Your task to perform on an android device: turn on the 24-hour format for clock Image 0: 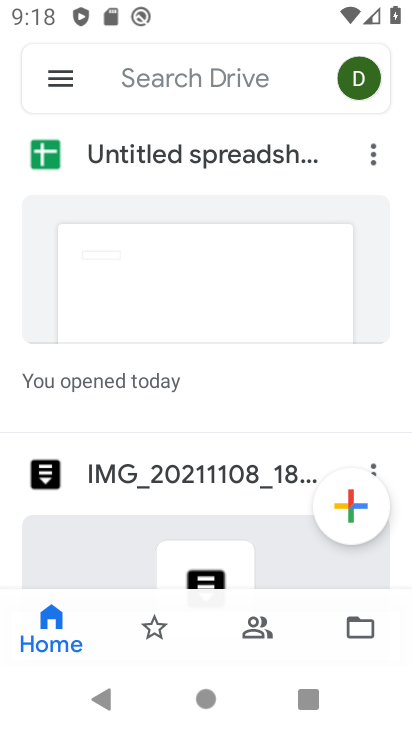
Step 0: press home button
Your task to perform on an android device: turn on the 24-hour format for clock Image 1: 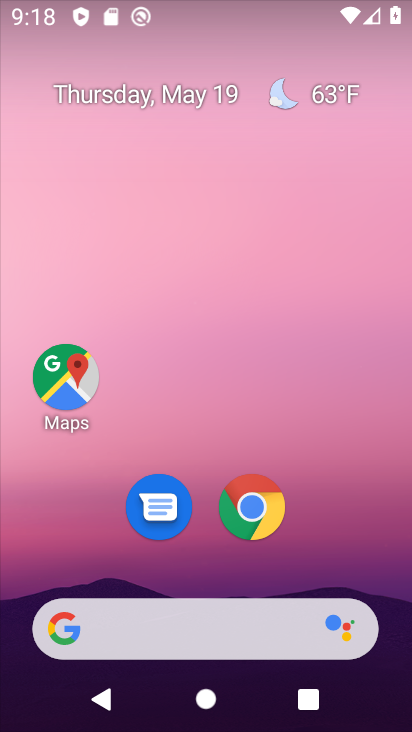
Step 1: drag from (387, 572) to (306, 106)
Your task to perform on an android device: turn on the 24-hour format for clock Image 2: 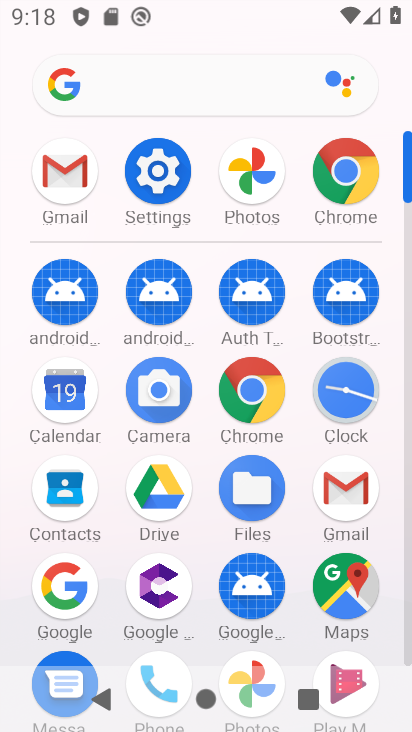
Step 2: click (356, 373)
Your task to perform on an android device: turn on the 24-hour format for clock Image 3: 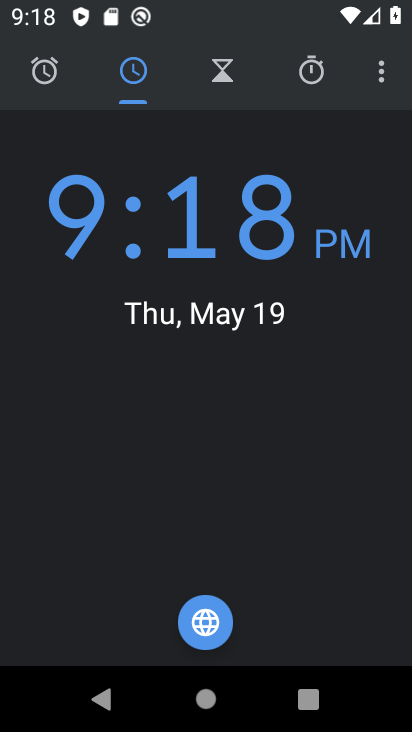
Step 3: click (390, 85)
Your task to perform on an android device: turn on the 24-hour format for clock Image 4: 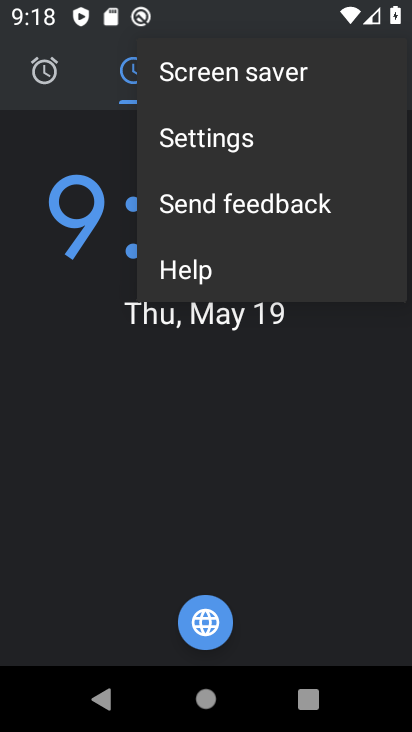
Step 4: click (314, 140)
Your task to perform on an android device: turn on the 24-hour format for clock Image 5: 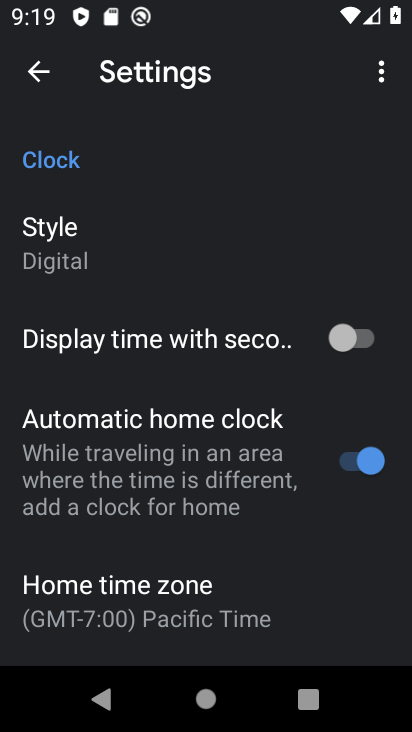
Step 5: drag from (275, 564) to (204, 195)
Your task to perform on an android device: turn on the 24-hour format for clock Image 6: 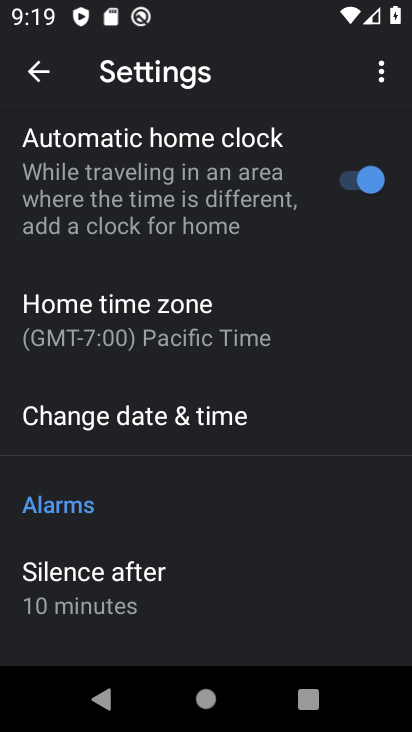
Step 6: click (258, 438)
Your task to perform on an android device: turn on the 24-hour format for clock Image 7: 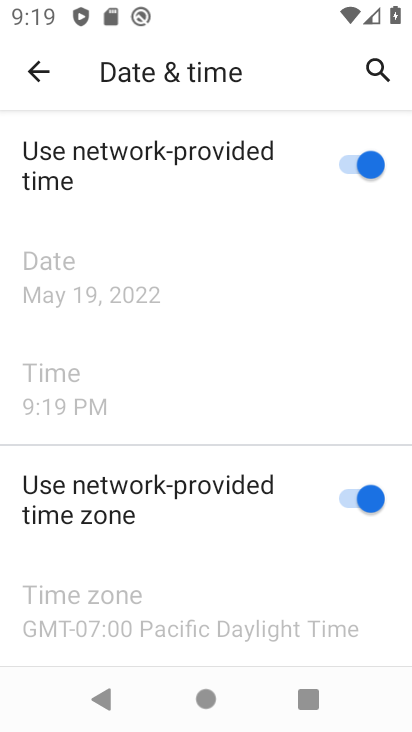
Step 7: drag from (273, 562) to (250, 137)
Your task to perform on an android device: turn on the 24-hour format for clock Image 8: 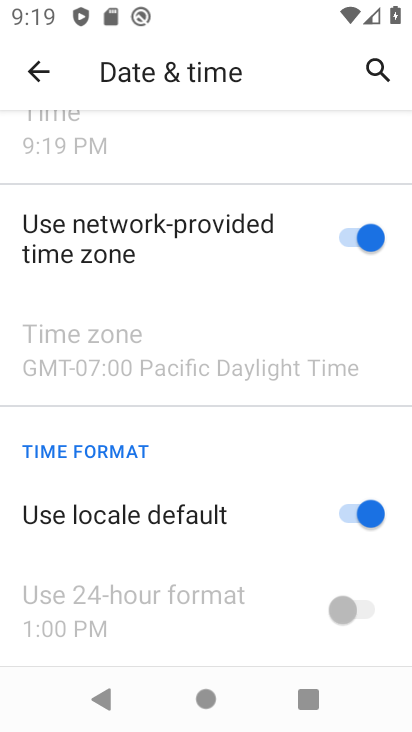
Step 8: click (350, 521)
Your task to perform on an android device: turn on the 24-hour format for clock Image 9: 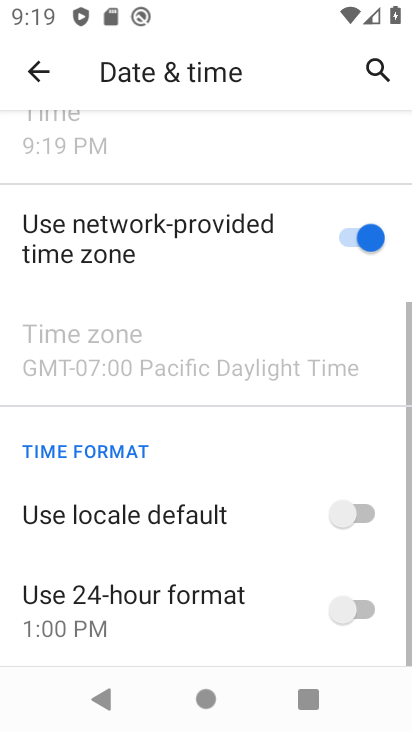
Step 9: click (364, 590)
Your task to perform on an android device: turn on the 24-hour format for clock Image 10: 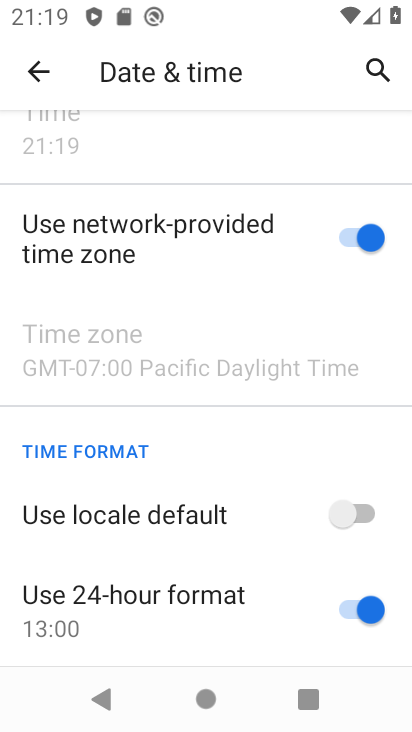
Step 10: task complete